Your task to perform on an android device: turn off wifi Image 0: 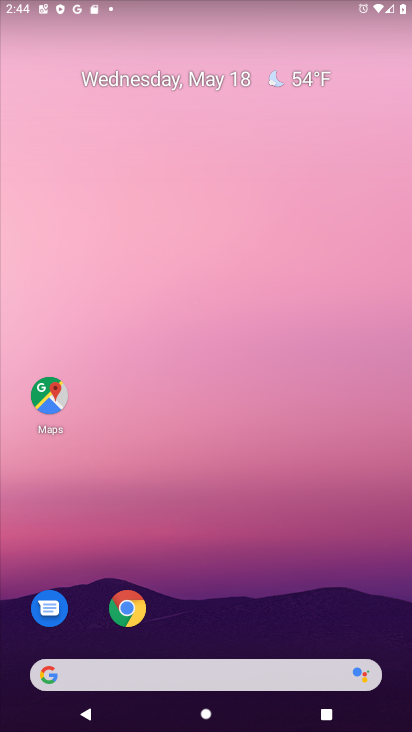
Step 0: drag from (300, 601) to (321, 148)
Your task to perform on an android device: turn off wifi Image 1: 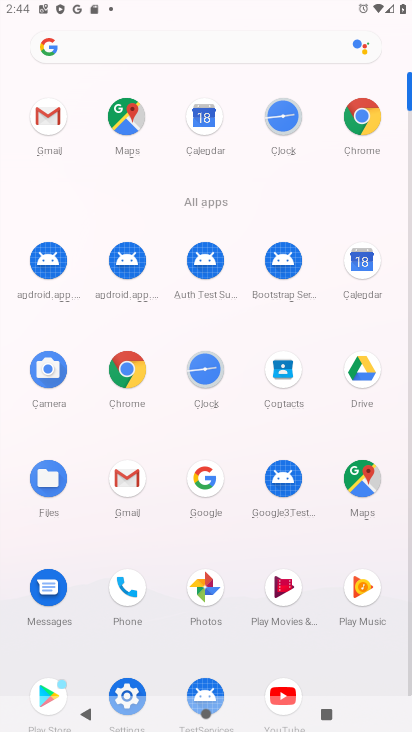
Step 1: click (122, 688)
Your task to perform on an android device: turn off wifi Image 2: 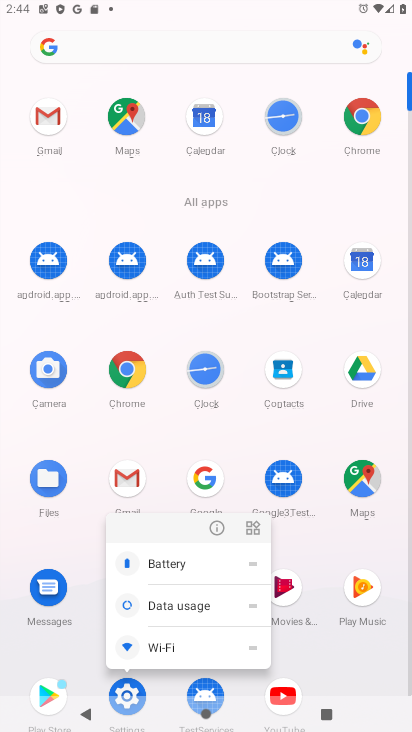
Step 2: click (128, 684)
Your task to perform on an android device: turn off wifi Image 3: 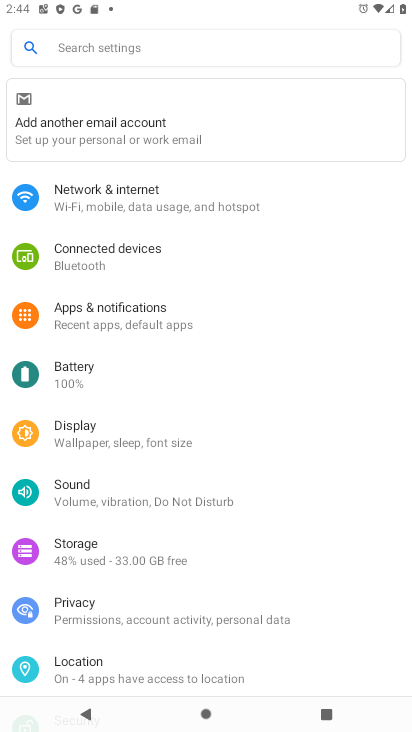
Step 3: click (94, 197)
Your task to perform on an android device: turn off wifi Image 4: 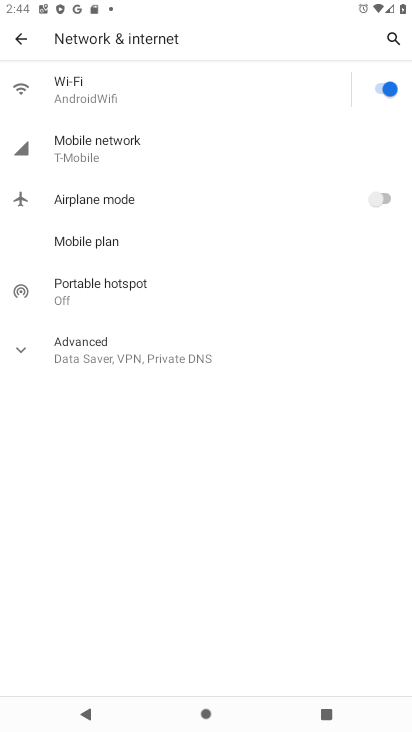
Step 4: click (385, 92)
Your task to perform on an android device: turn off wifi Image 5: 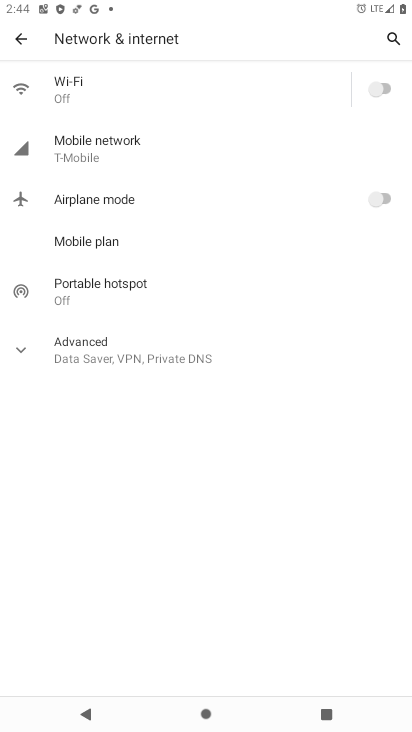
Step 5: task complete